Your task to perform on an android device: show emergency info Image 0: 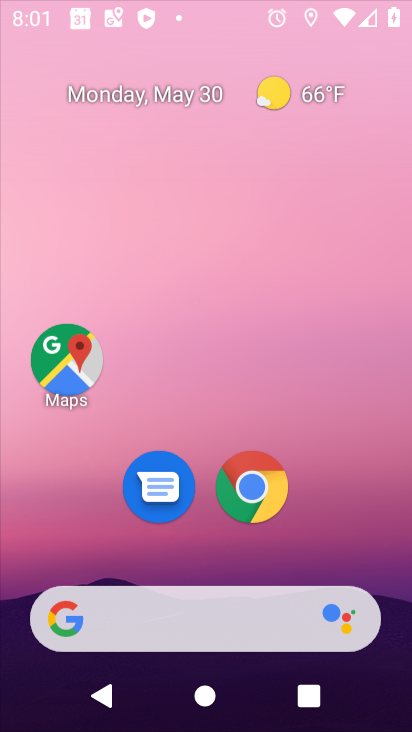
Step 0: press home button
Your task to perform on an android device: show emergency info Image 1: 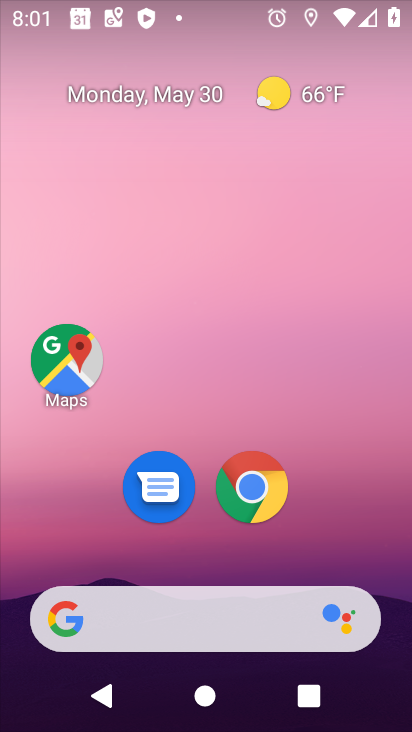
Step 1: drag from (317, 548) to (301, 112)
Your task to perform on an android device: show emergency info Image 2: 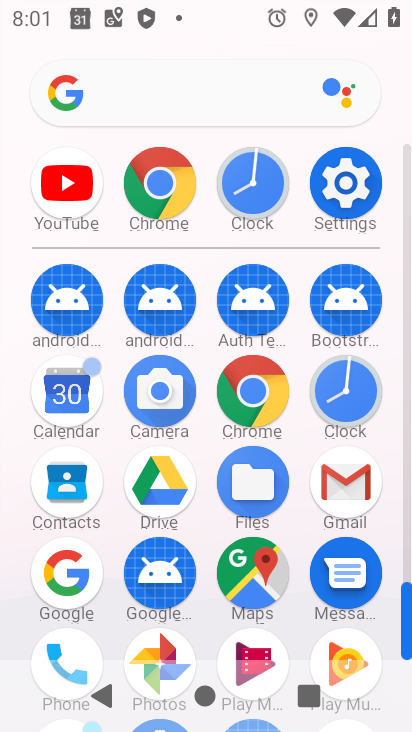
Step 2: click (348, 193)
Your task to perform on an android device: show emergency info Image 3: 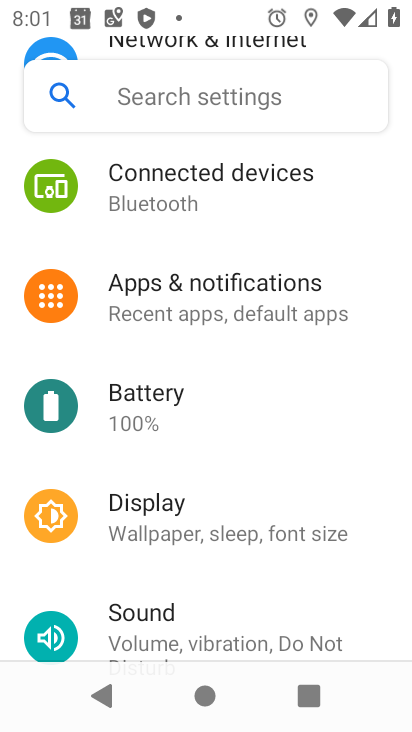
Step 3: drag from (357, 513) to (361, 1)
Your task to perform on an android device: show emergency info Image 4: 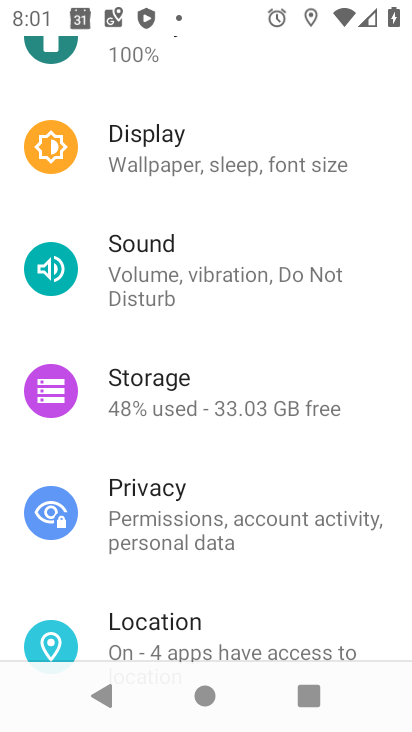
Step 4: drag from (248, 562) to (242, 3)
Your task to perform on an android device: show emergency info Image 5: 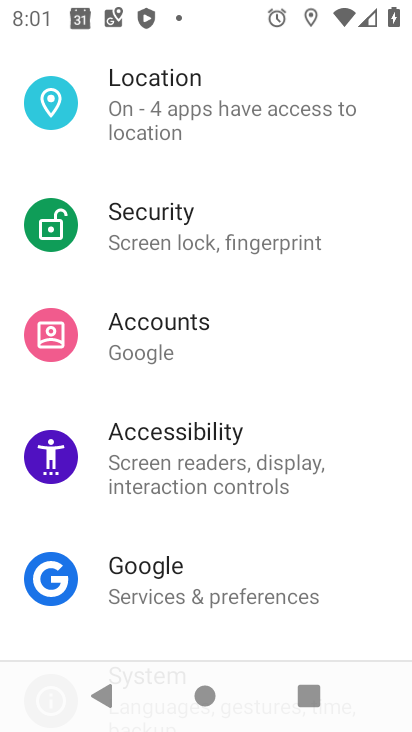
Step 5: drag from (164, 453) to (146, 16)
Your task to perform on an android device: show emergency info Image 6: 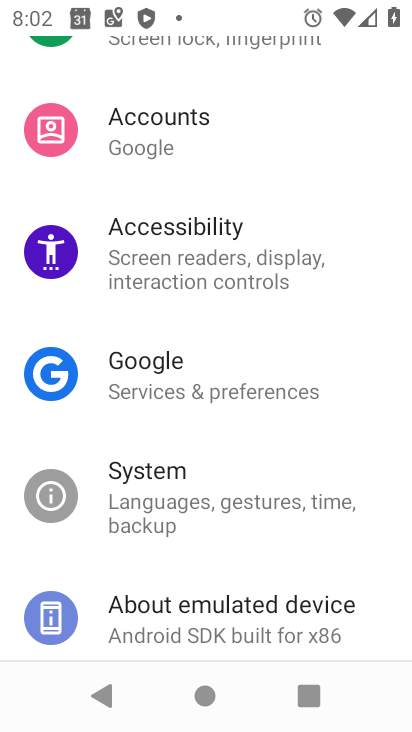
Step 6: drag from (206, 549) to (235, 26)
Your task to perform on an android device: show emergency info Image 7: 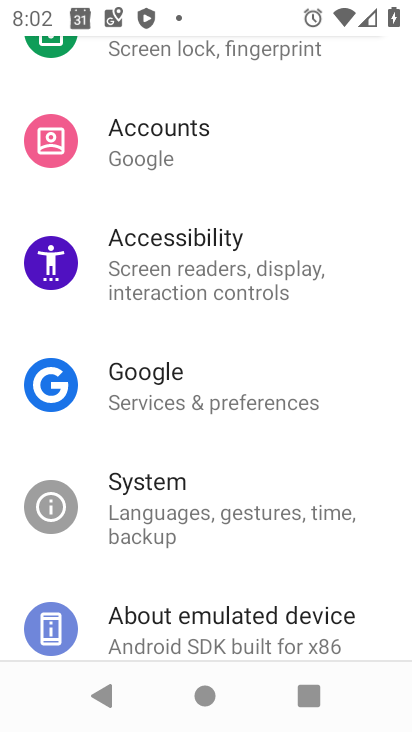
Step 7: click (191, 623)
Your task to perform on an android device: show emergency info Image 8: 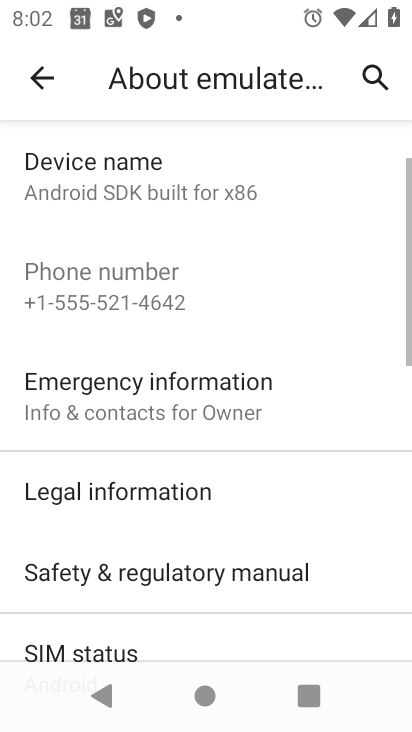
Step 8: click (138, 378)
Your task to perform on an android device: show emergency info Image 9: 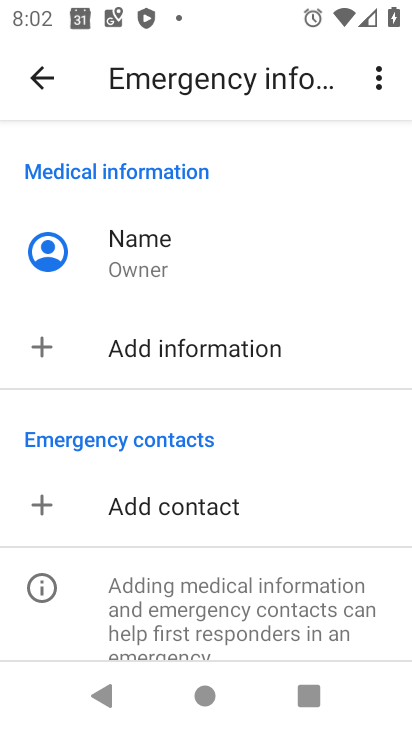
Step 9: task complete